Your task to perform on an android device: open app "Roku - Official Remote Control" Image 0: 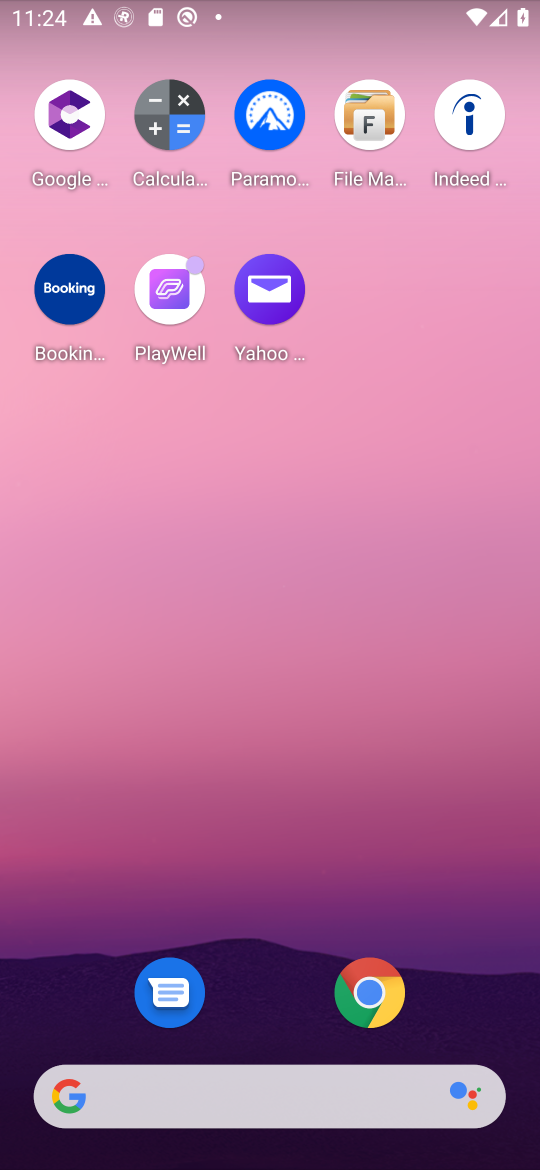
Step 0: drag from (246, 1106) to (408, 64)
Your task to perform on an android device: open app "Roku - Official Remote Control" Image 1: 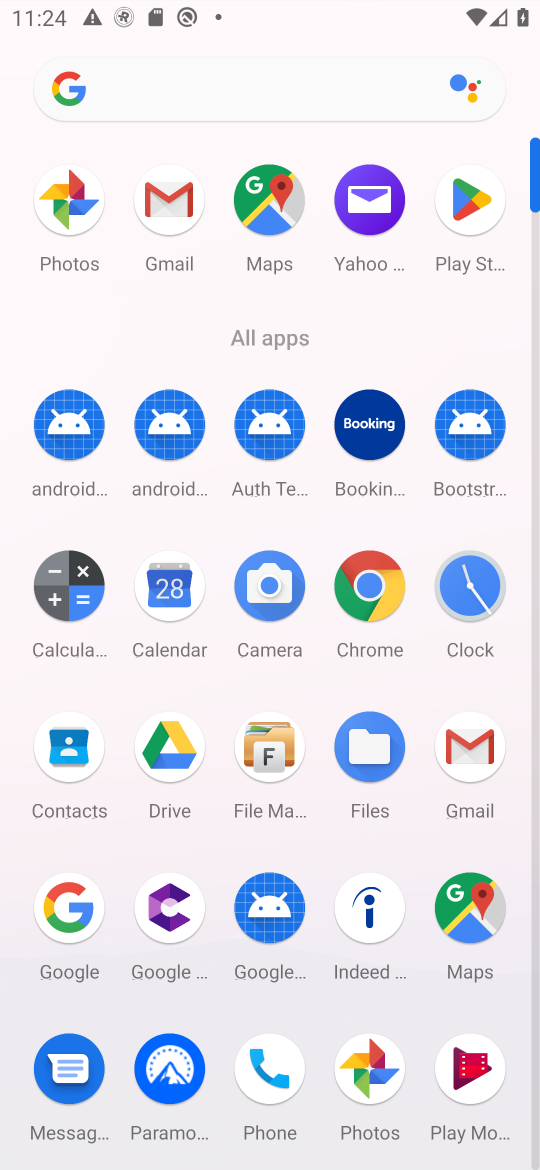
Step 1: click (473, 209)
Your task to perform on an android device: open app "Roku - Official Remote Control" Image 2: 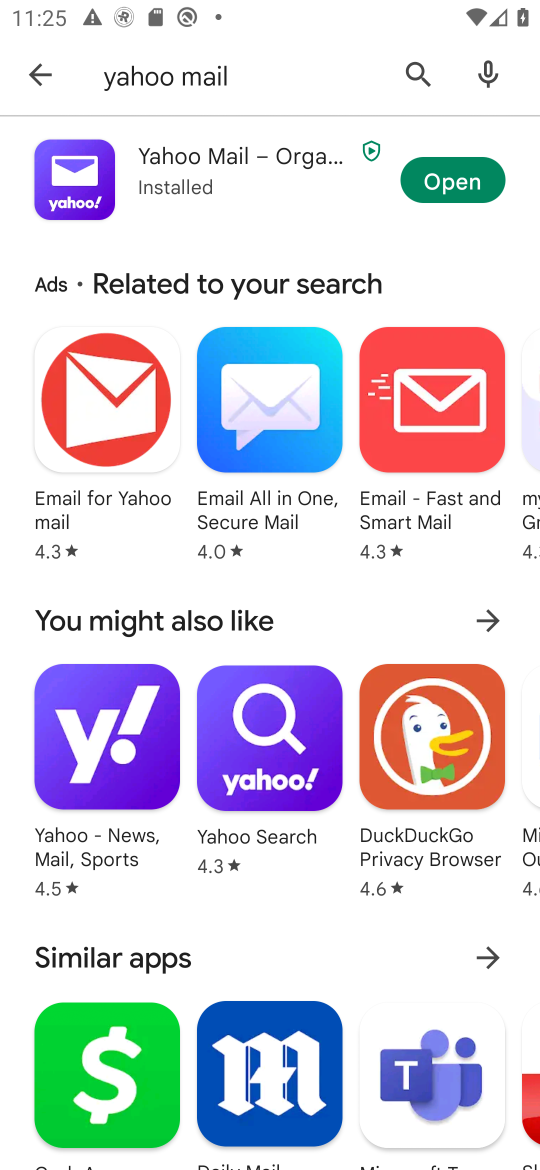
Step 2: click (411, 64)
Your task to perform on an android device: open app "Roku - Official Remote Control" Image 3: 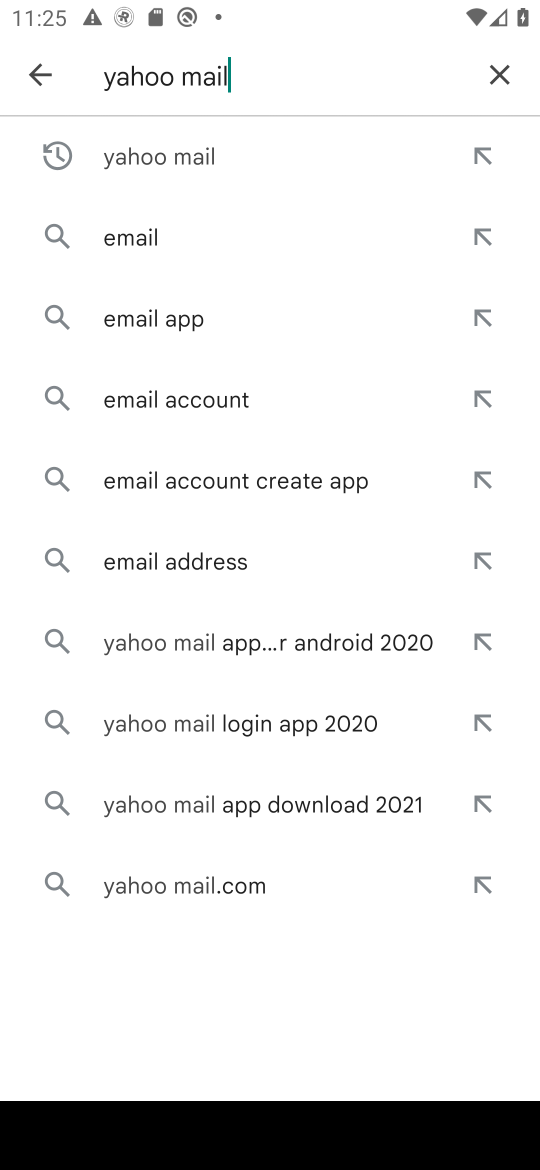
Step 3: click (510, 73)
Your task to perform on an android device: open app "Roku - Official Remote Control" Image 4: 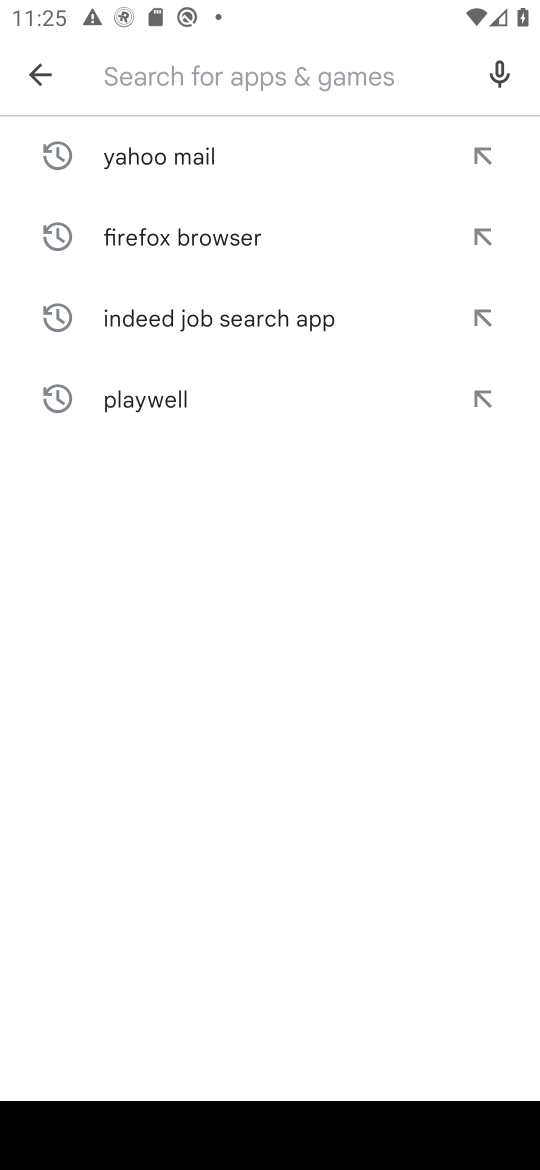
Step 4: type "Roku - Official Remote Control"
Your task to perform on an android device: open app "Roku - Official Remote Control" Image 5: 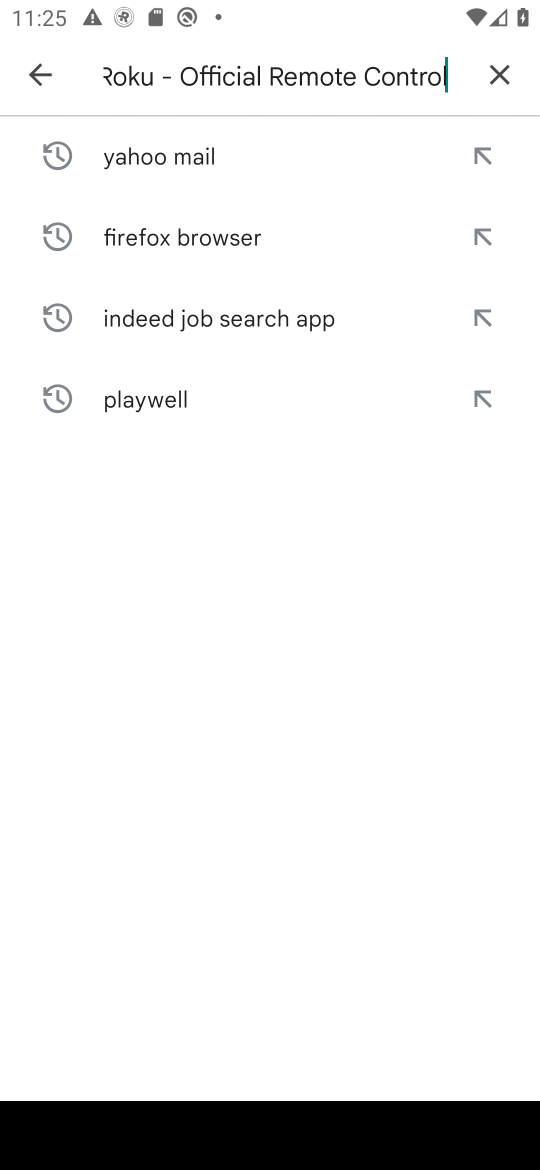
Step 5: type ""
Your task to perform on an android device: open app "Roku - Official Remote Control" Image 6: 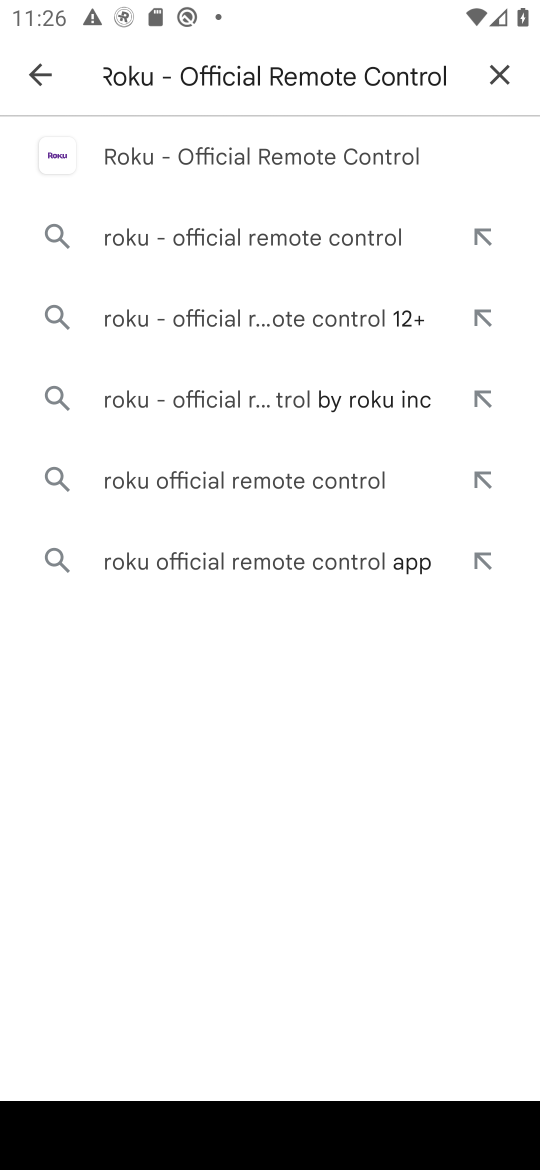
Step 6: click (411, 167)
Your task to perform on an android device: open app "Roku - Official Remote Control" Image 7: 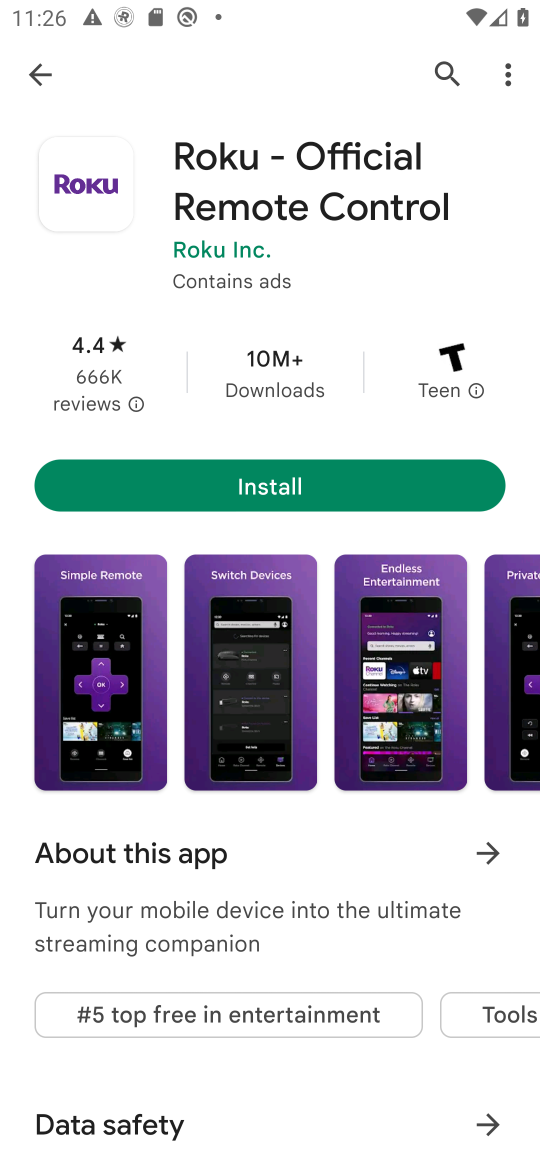
Step 7: task complete